Your task to perform on an android device: find snoozed emails in the gmail app Image 0: 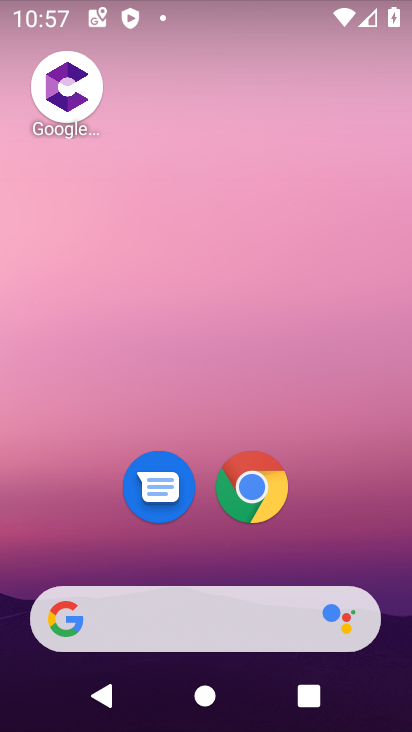
Step 0: drag from (374, 458) to (308, 149)
Your task to perform on an android device: find snoozed emails in the gmail app Image 1: 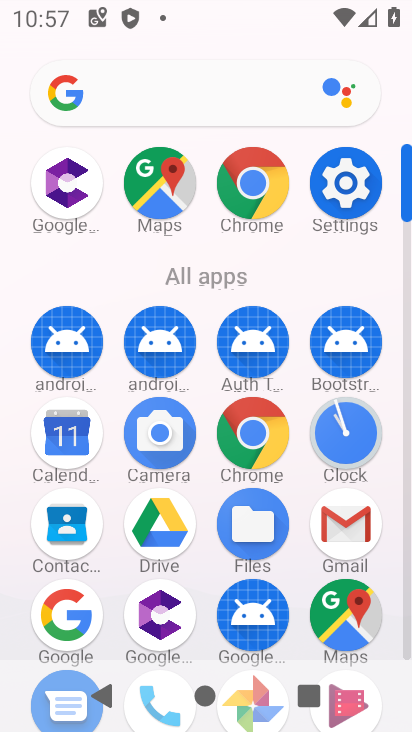
Step 1: click (358, 530)
Your task to perform on an android device: find snoozed emails in the gmail app Image 2: 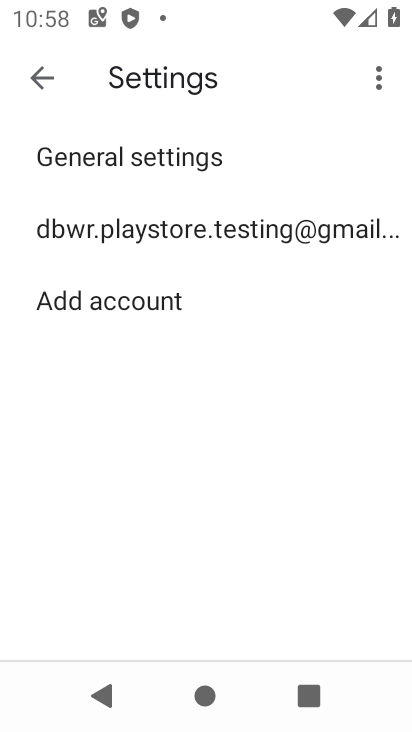
Step 2: press home button
Your task to perform on an android device: find snoozed emails in the gmail app Image 3: 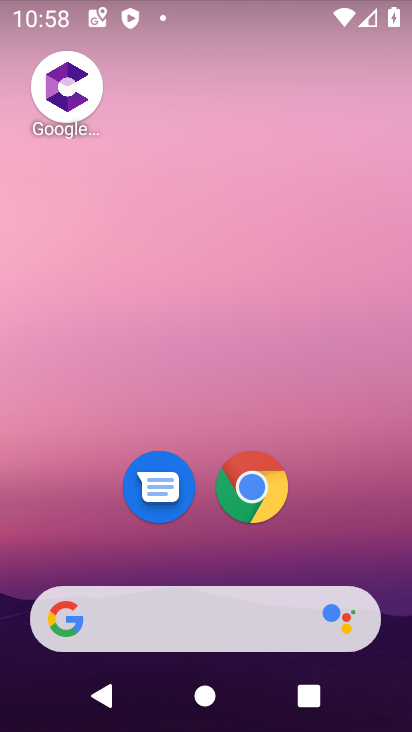
Step 3: drag from (337, 500) to (269, 134)
Your task to perform on an android device: find snoozed emails in the gmail app Image 4: 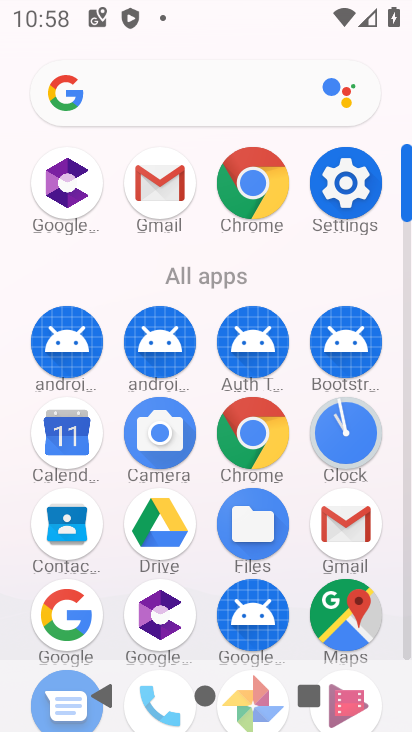
Step 4: click (343, 525)
Your task to perform on an android device: find snoozed emails in the gmail app Image 5: 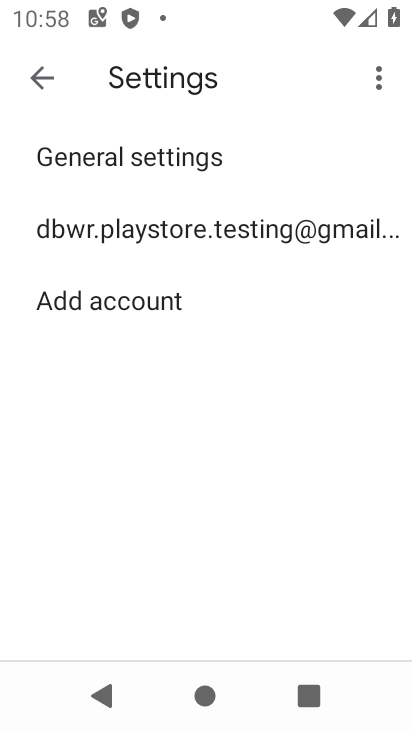
Step 5: click (39, 80)
Your task to perform on an android device: find snoozed emails in the gmail app Image 6: 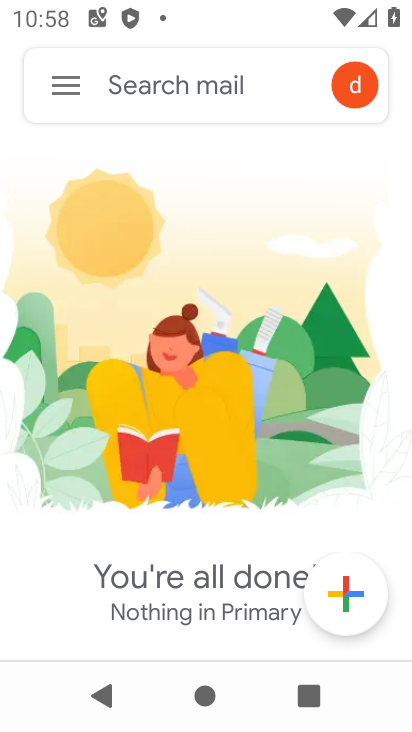
Step 6: click (76, 89)
Your task to perform on an android device: find snoozed emails in the gmail app Image 7: 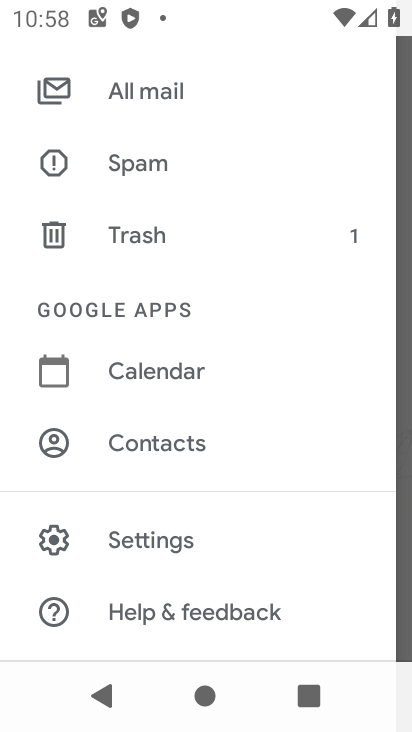
Step 7: drag from (229, 256) to (255, 721)
Your task to perform on an android device: find snoozed emails in the gmail app Image 8: 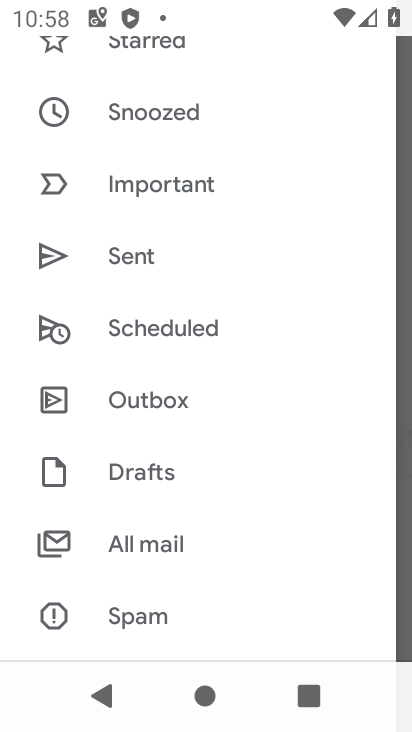
Step 8: click (182, 115)
Your task to perform on an android device: find snoozed emails in the gmail app Image 9: 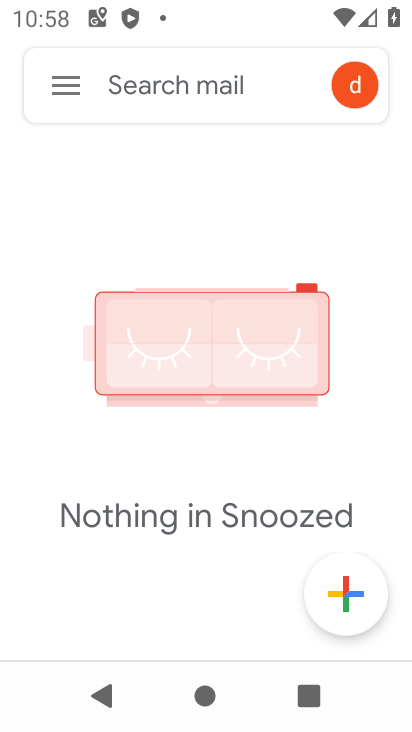
Step 9: task complete